Your task to perform on an android device: turn on showing notifications on the lock screen Image 0: 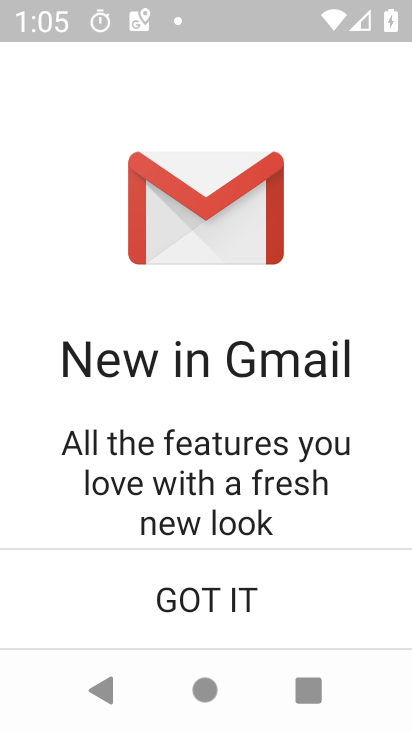
Step 0: press back button
Your task to perform on an android device: turn on showing notifications on the lock screen Image 1: 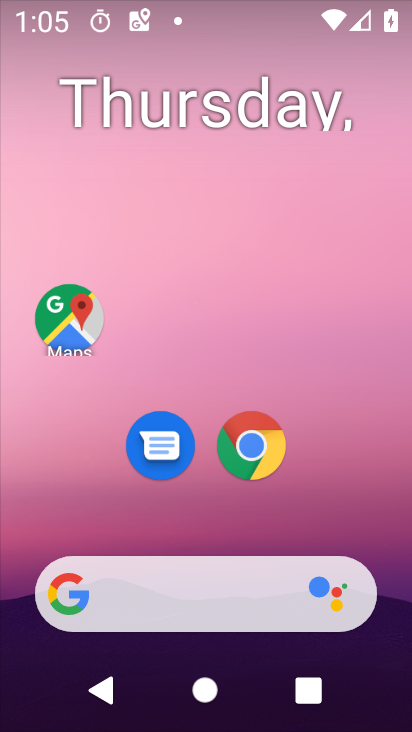
Step 1: drag from (165, 552) to (250, 46)
Your task to perform on an android device: turn on showing notifications on the lock screen Image 2: 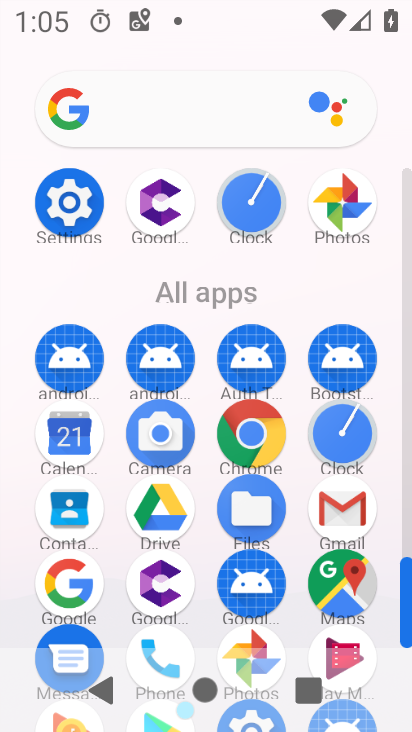
Step 2: drag from (197, 610) to (239, 238)
Your task to perform on an android device: turn on showing notifications on the lock screen Image 3: 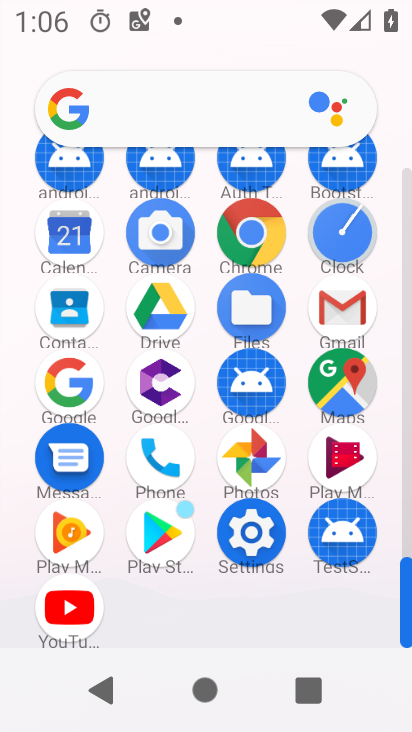
Step 3: click (262, 545)
Your task to perform on an android device: turn on showing notifications on the lock screen Image 4: 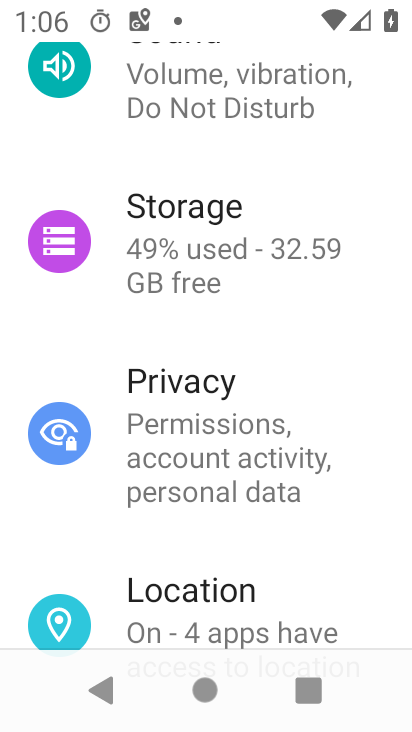
Step 4: drag from (224, 351) to (205, 544)
Your task to perform on an android device: turn on showing notifications on the lock screen Image 5: 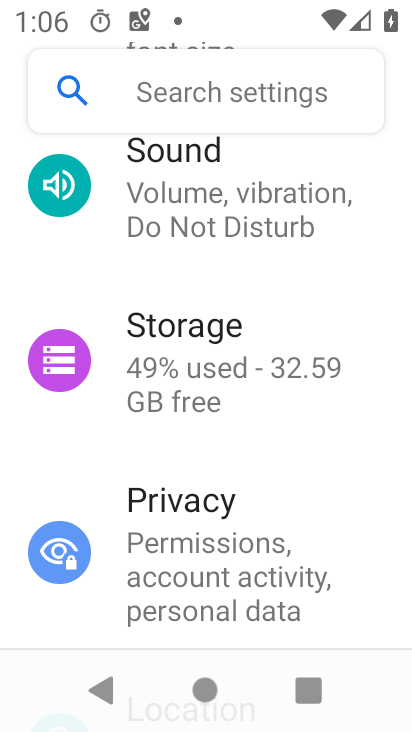
Step 5: drag from (274, 252) to (180, 526)
Your task to perform on an android device: turn on showing notifications on the lock screen Image 6: 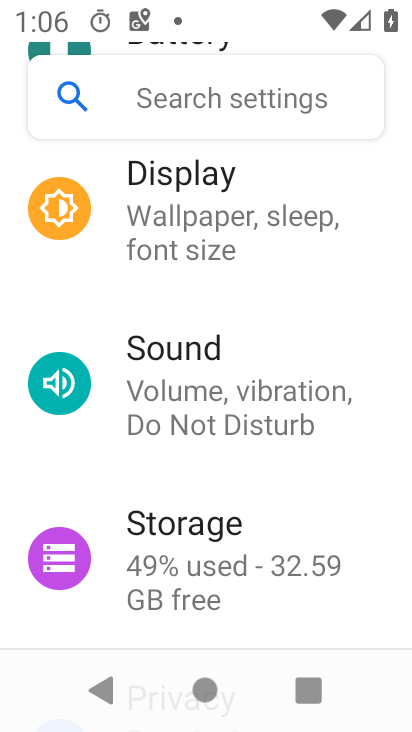
Step 6: drag from (206, 236) to (193, 500)
Your task to perform on an android device: turn on showing notifications on the lock screen Image 7: 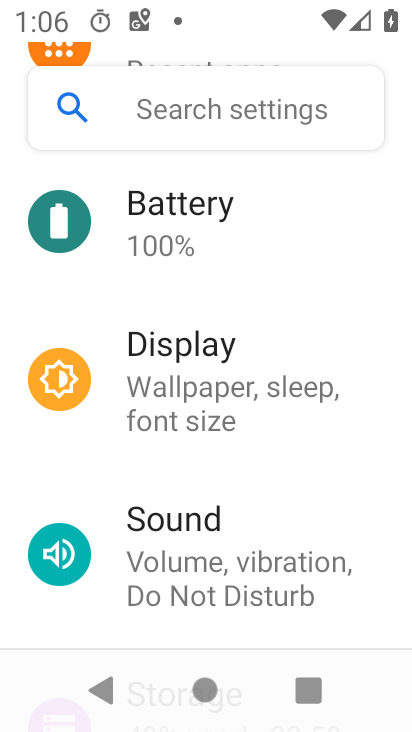
Step 7: drag from (225, 325) to (224, 516)
Your task to perform on an android device: turn on showing notifications on the lock screen Image 8: 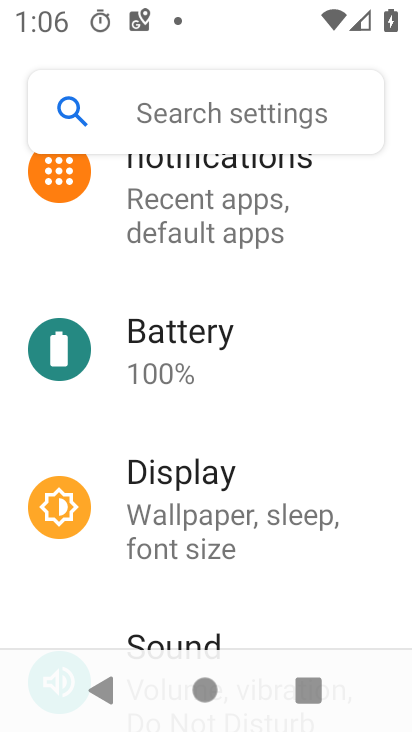
Step 8: click (243, 238)
Your task to perform on an android device: turn on showing notifications on the lock screen Image 9: 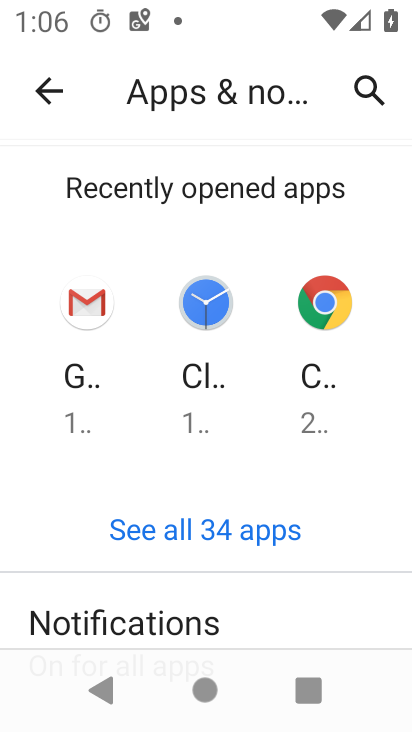
Step 9: drag from (198, 554) to (278, 264)
Your task to perform on an android device: turn on showing notifications on the lock screen Image 10: 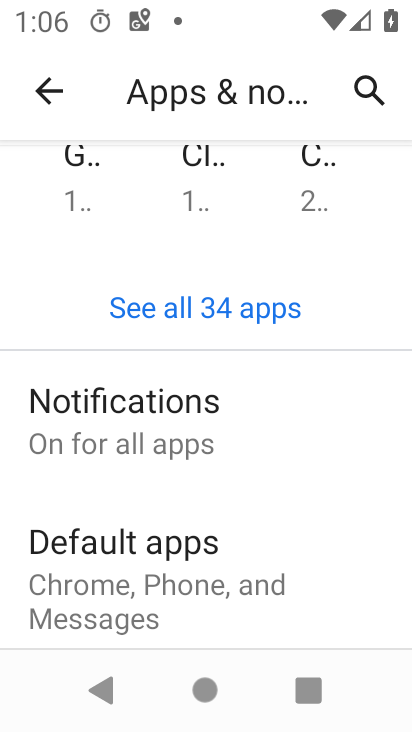
Step 10: click (226, 450)
Your task to perform on an android device: turn on showing notifications on the lock screen Image 11: 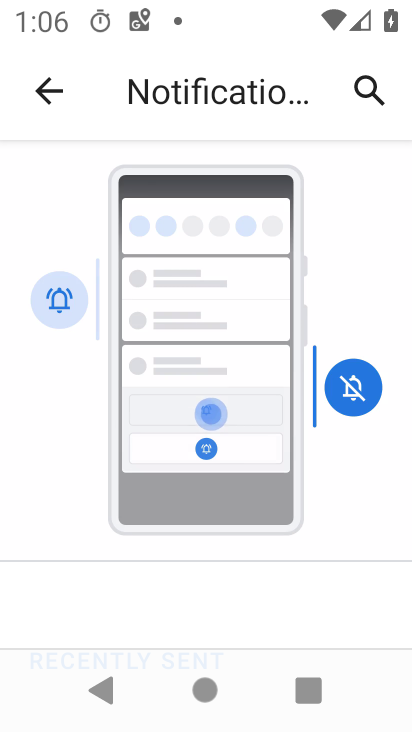
Step 11: drag from (183, 596) to (312, 175)
Your task to perform on an android device: turn on showing notifications on the lock screen Image 12: 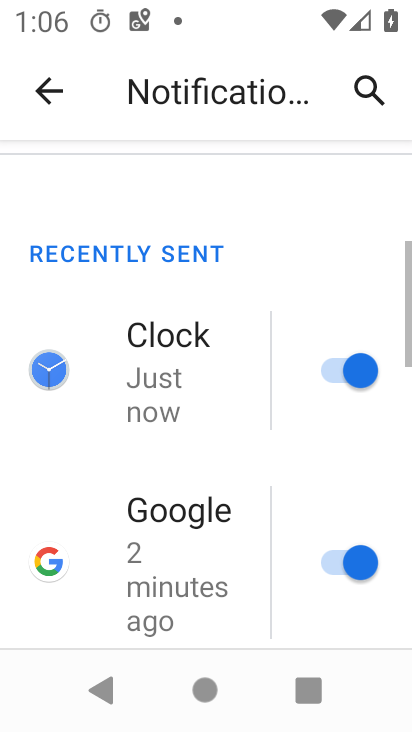
Step 12: drag from (222, 618) to (344, 137)
Your task to perform on an android device: turn on showing notifications on the lock screen Image 13: 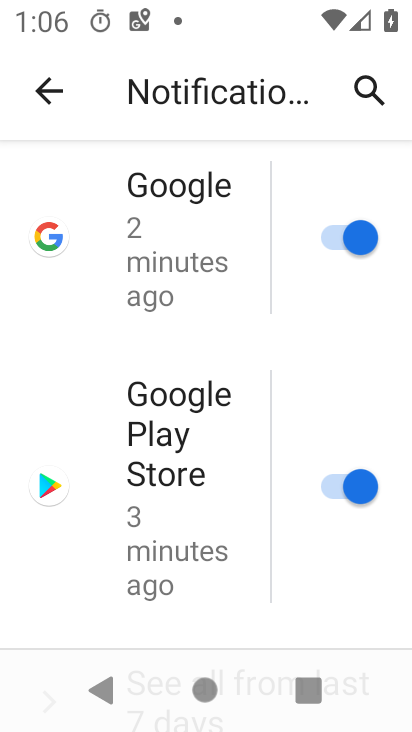
Step 13: drag from (232, 641) to (362, 110)
Your task to perform on an android device: turn on showing notifications on the lock screen Image 14: 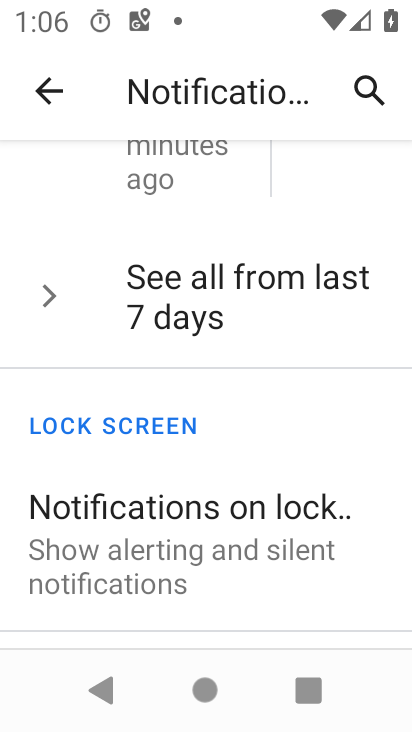
Step 14: click (222, 549)
Your task to perform on an android device: turn on showing notifications on the lock screen Image 15: 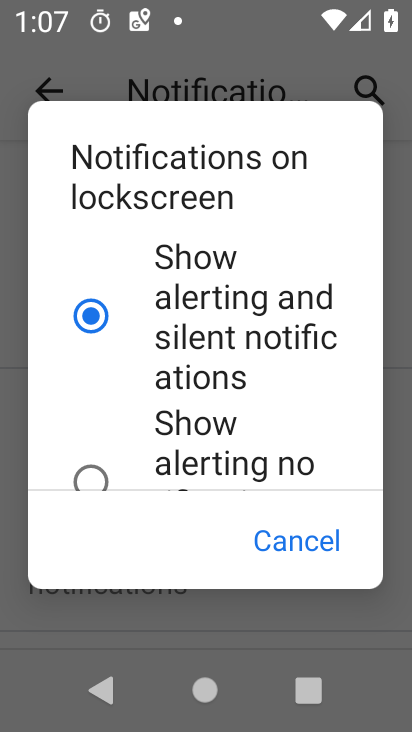
Step 15: task complete